Your task to perform on an android device: What's the weather going to be this weekend? Image 0: 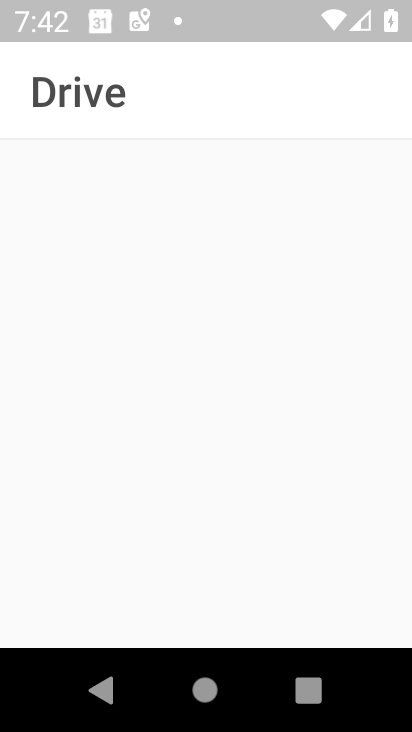
Step 0: press home button
Your task to perform on an android device: What's the weather going to be this weekend? Image 1: 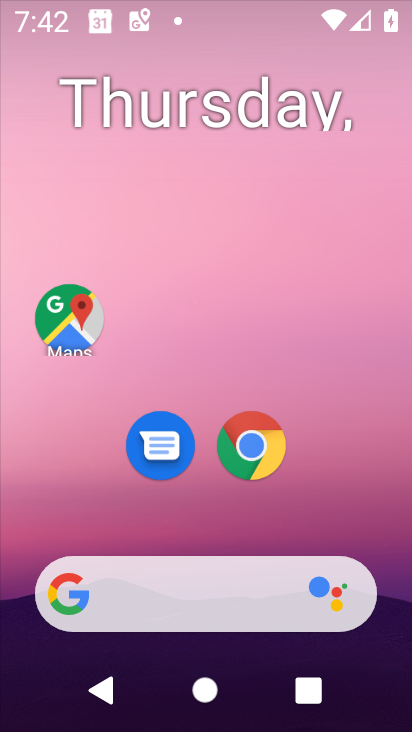
Step 1: drag from (401, 568) to (47, 74)
Your task to perform on an android device: What's the weather going to be this weekend? Image 2: 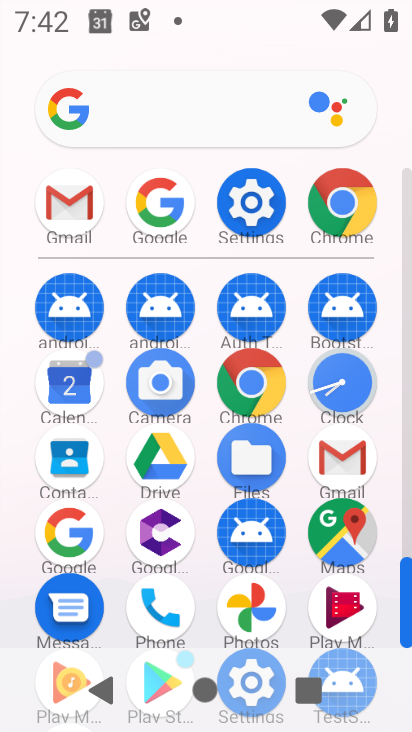
Step 2: click (65, 529)
Your task to perform on an android device: What's the weather going to be this weekend? Image 3: 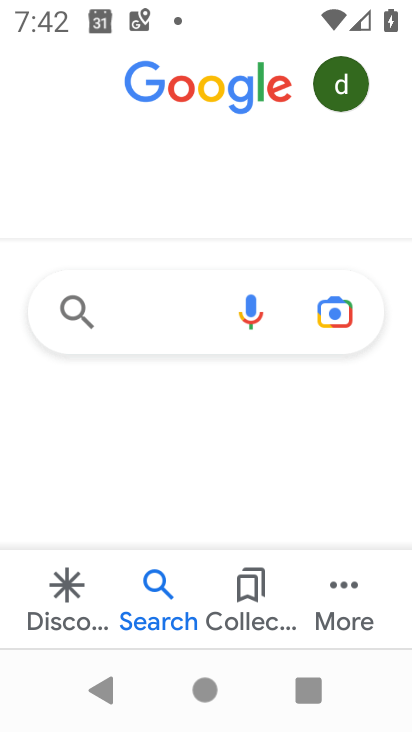
Step 3: click (126, 317)
Your task to perform on an android device: What's the weather going to be this weekend? Image 4: 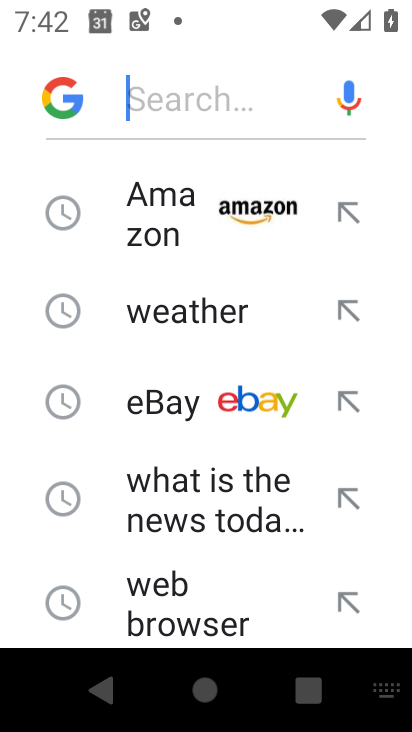
Step 4: drag from (152, 583) to (162, 197)
Your task to perform on an android device: What's the weather going to be this weekend? Image 5: 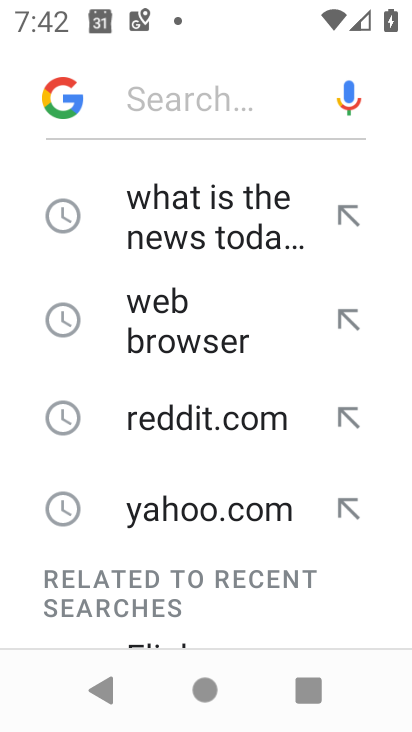
Step 5: click (149, 159)
Your task to perform on an android device: What's the weather going to be this weekend? Image 6: 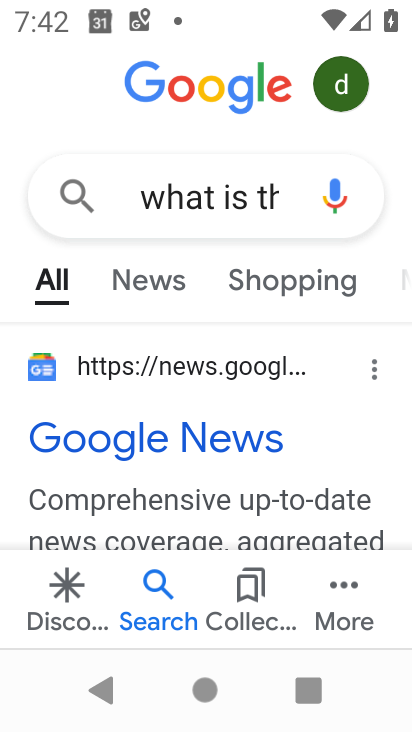
Step 6: press back button
Your task to perform on an android device: What's the weather going to be this weekend? Image 7: 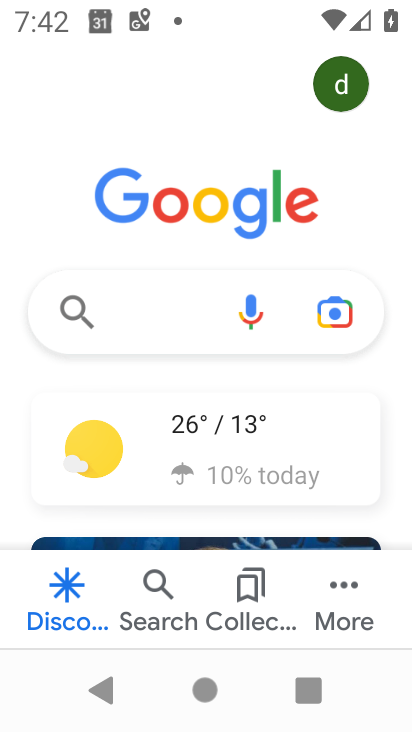
Step 7: click (150, 309)
Your task to perform on an android device: What's the weather going to be this weekend? Image 8: 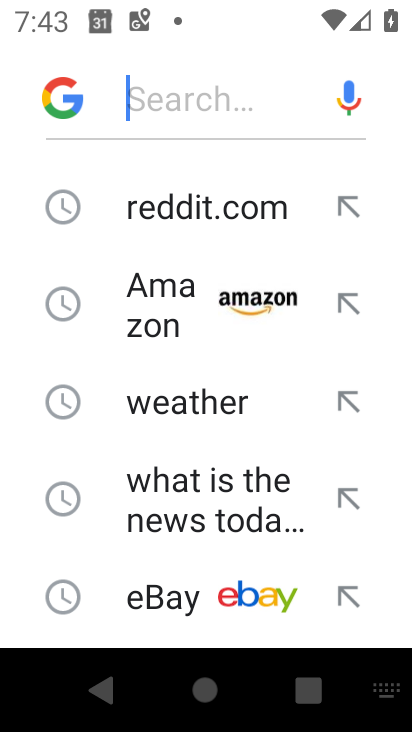
Step 8: type "what's the weather going to be this weekend?"
Your task to perform on an android device: What's the weather going to be this weekend? Image 9: 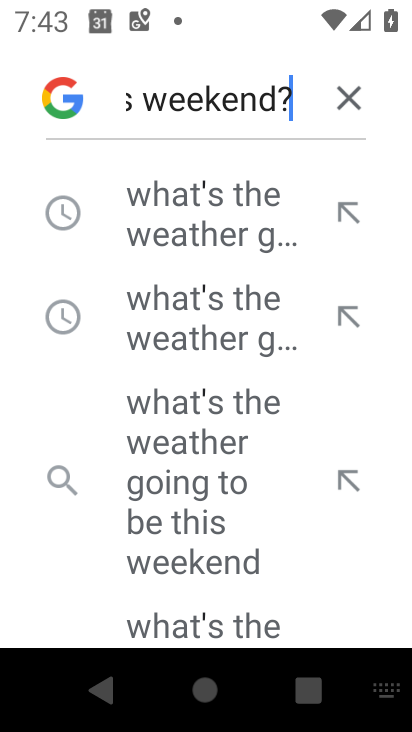
Step 9: click (145, 195)
Your task to perform on an android device: What's the weather going to be this weekend? Image 10: 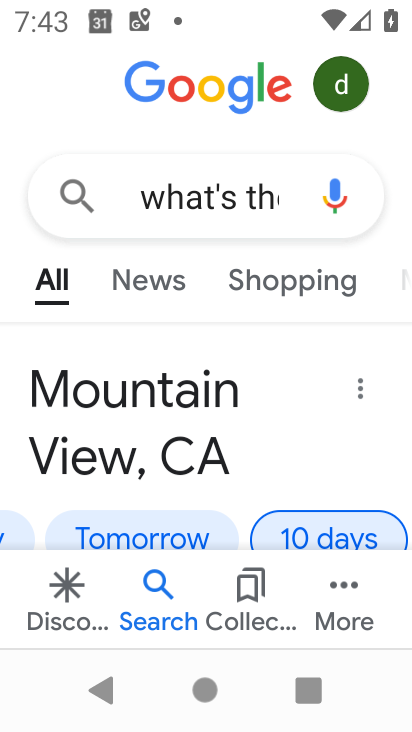
Step 10: task complete